Your task to perform on an android device: turn on location history Image 0: 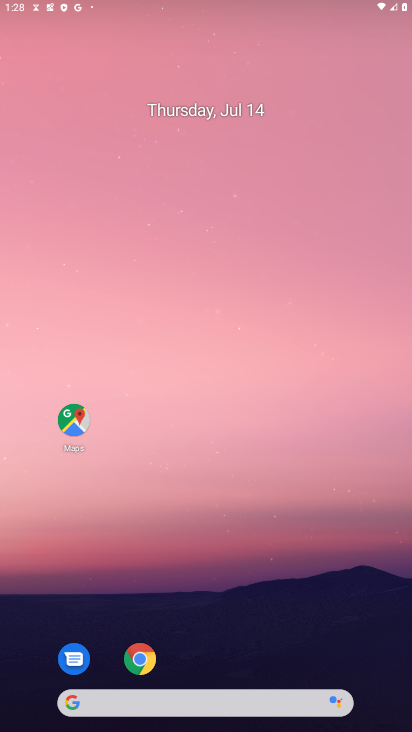
Step 0: click (76, 400)
Your task to perform on an android device: turn on location history Image 1: 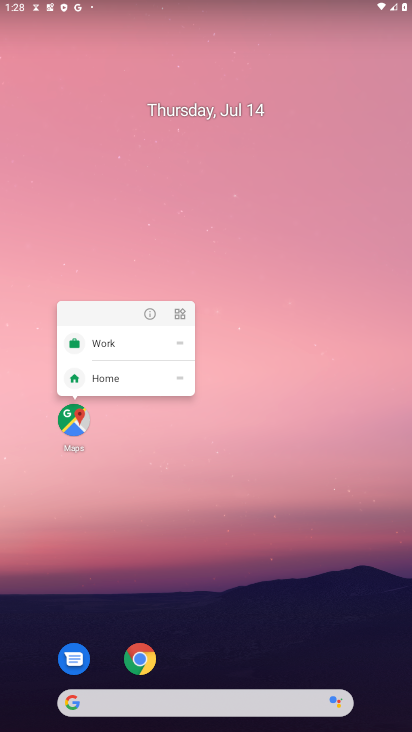
Step 1: task complete